Your task to perform on an android device: turn off notifications in google photos Image 0: 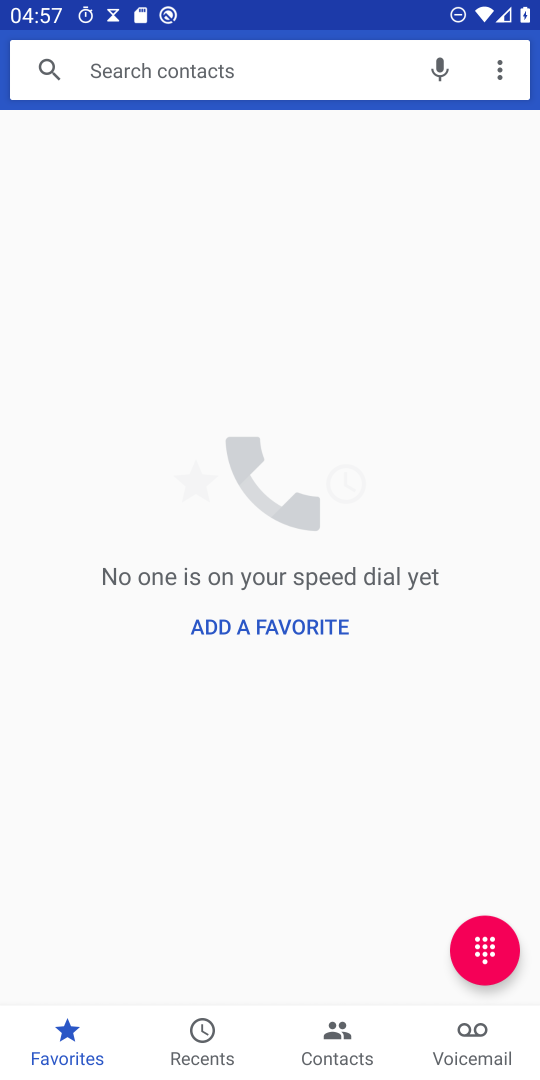
Step 0: press home button
Your task to perform on an android device: turn off notifications in google photos Image 1: 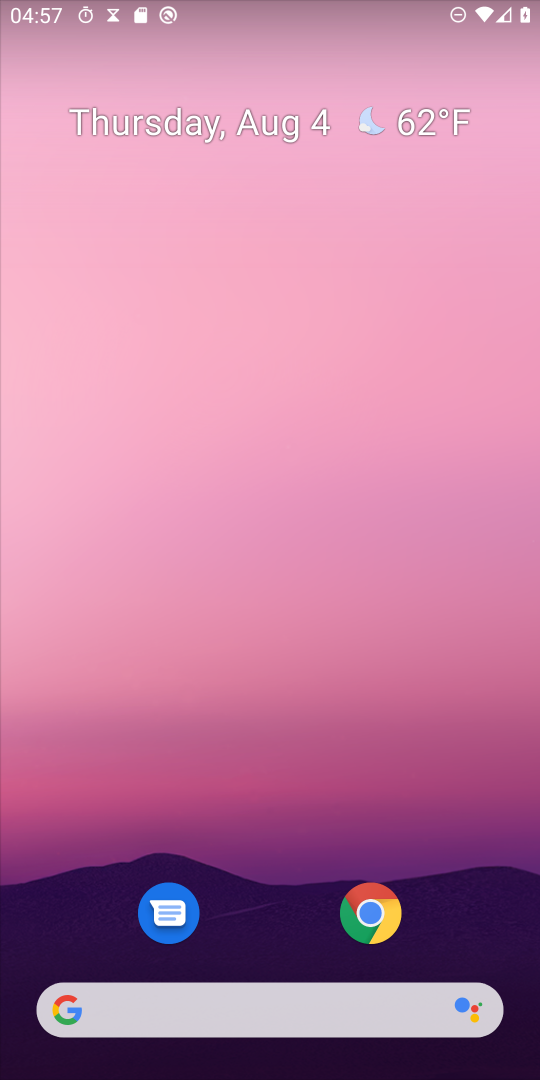
Step 1: drag from (351, 880) to (357, 31)
Your task to perform on an android device: turn off notifications in google photos Image 2: 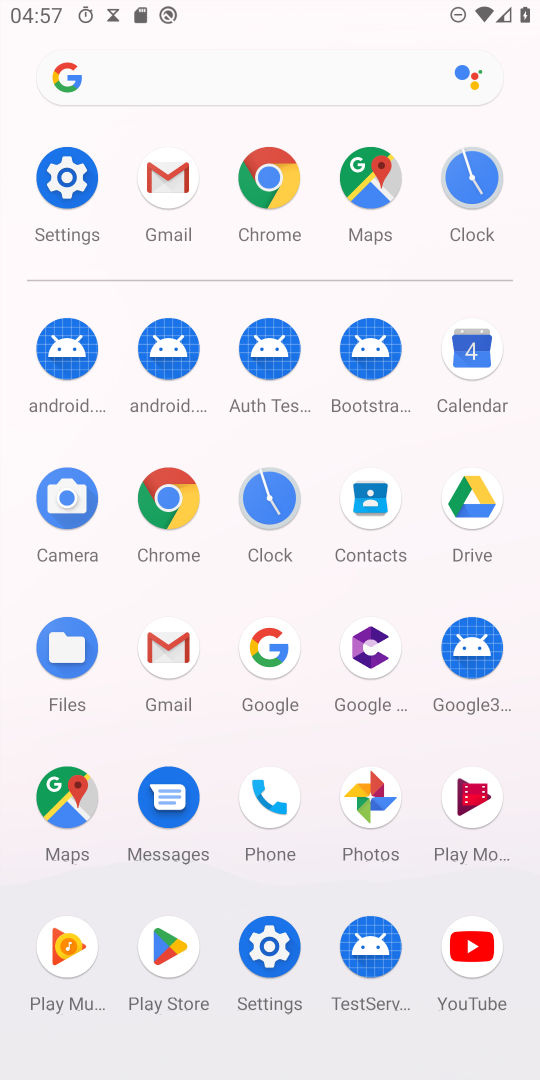
Step 2: click (356, 798)
Your task to perform on an android device: turn off notifications in google photos Image 3: 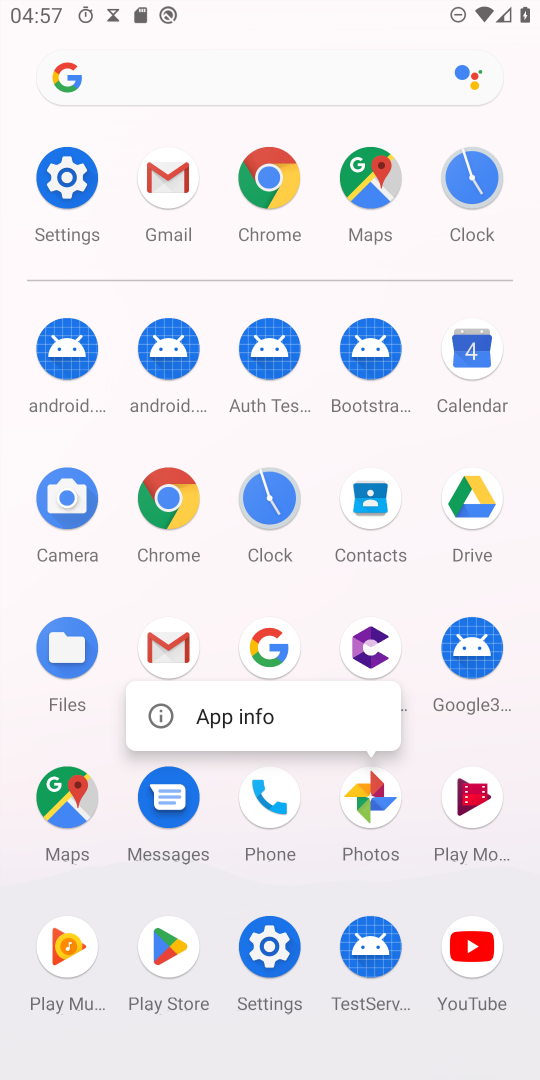
Step 3: click (362, 791)
Your task to perform on an android device: turn off notifications in google photos Image 4: 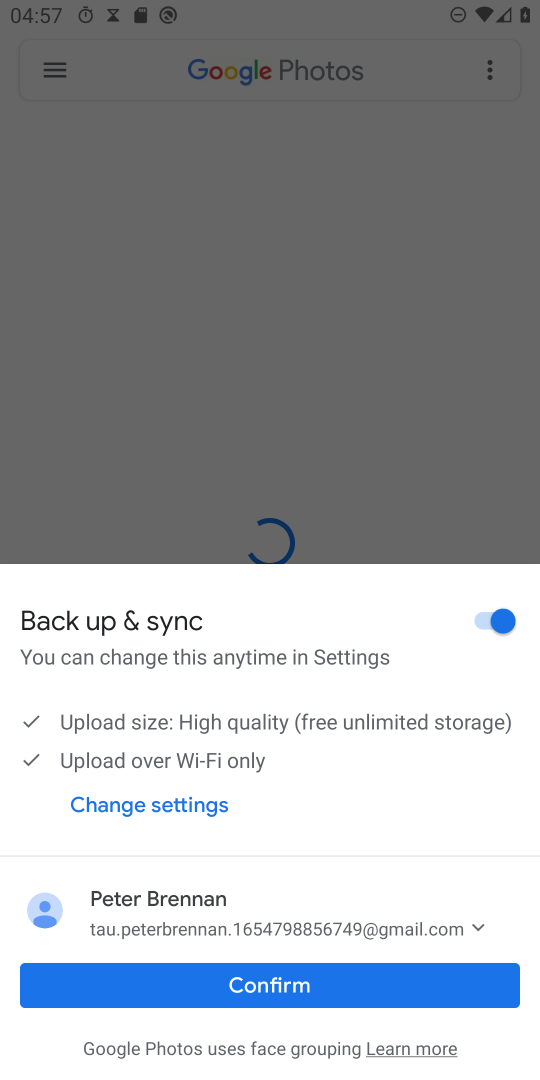
Step 4: click (283, 978)
Your task to perform on an android device: turn off notifications in google photos Image 5: 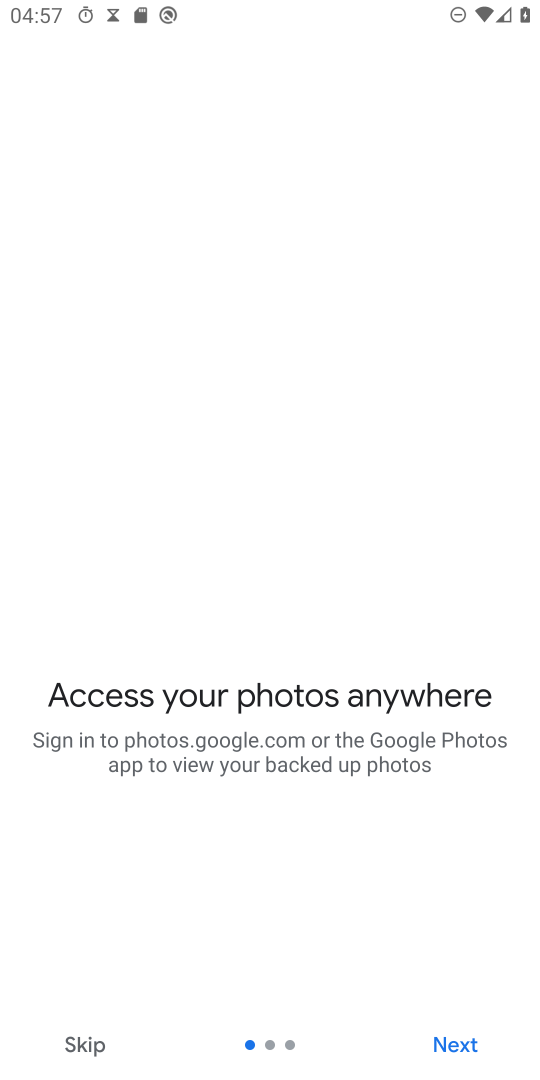
Step 5: click (444, 1035)
Your task to perform on an android device: turn off notifications in google photos Image 6: 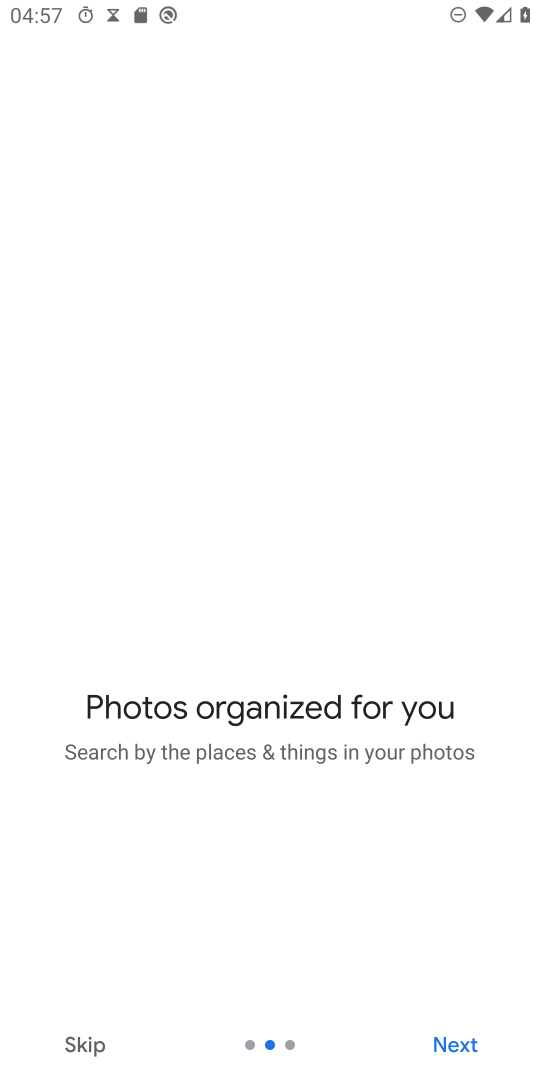
Step 6: click (444, 1035)
Your task to perform on an android device: turn off notifications in google photos Image 7: 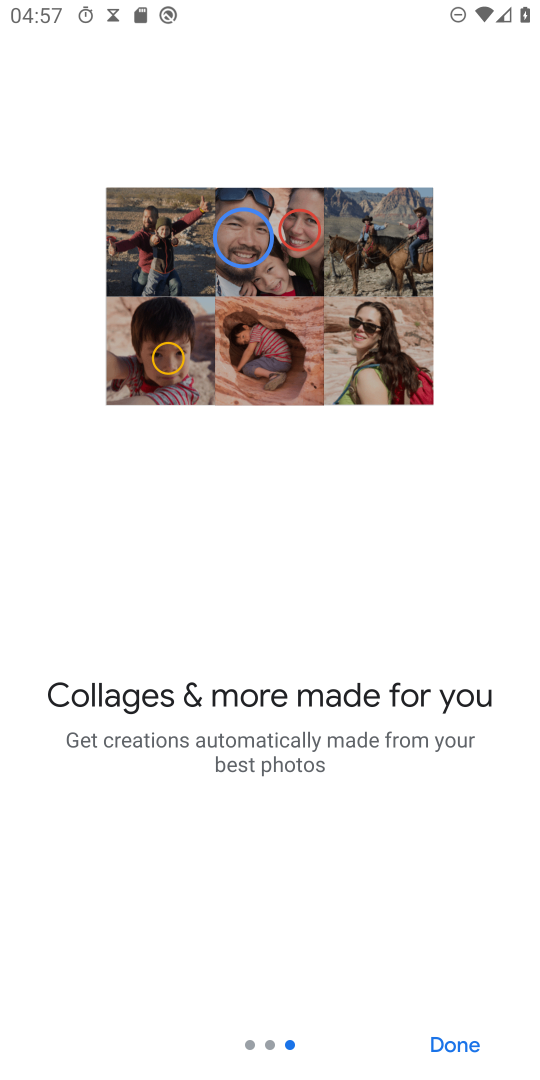
Step 7: click (444, 1035)
Your task to perform on an android device: turn off notifications in google photos Image 8: 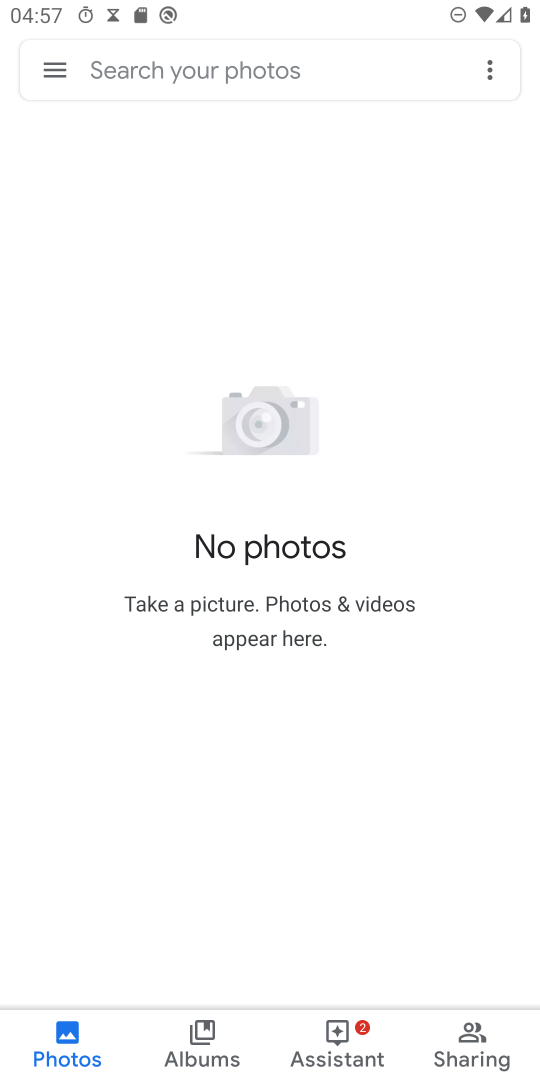
Step 8: click (61, 61)
Your task to perform on an android device: turn off notifications in google photos Image 9: 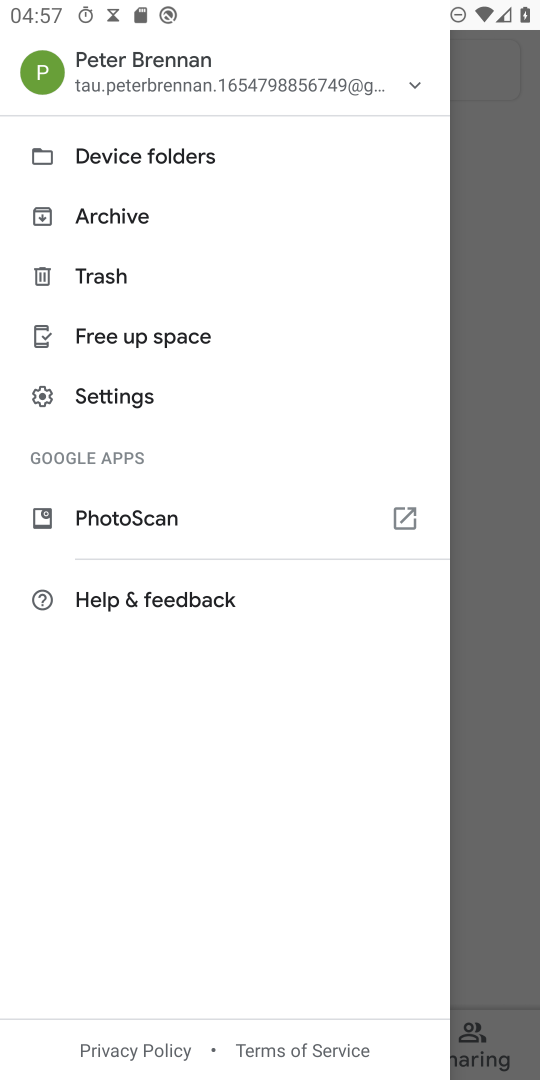
Step 9: click (134, 407)
Your task to perform on an android device: turn off notifications in google photos Image 10: 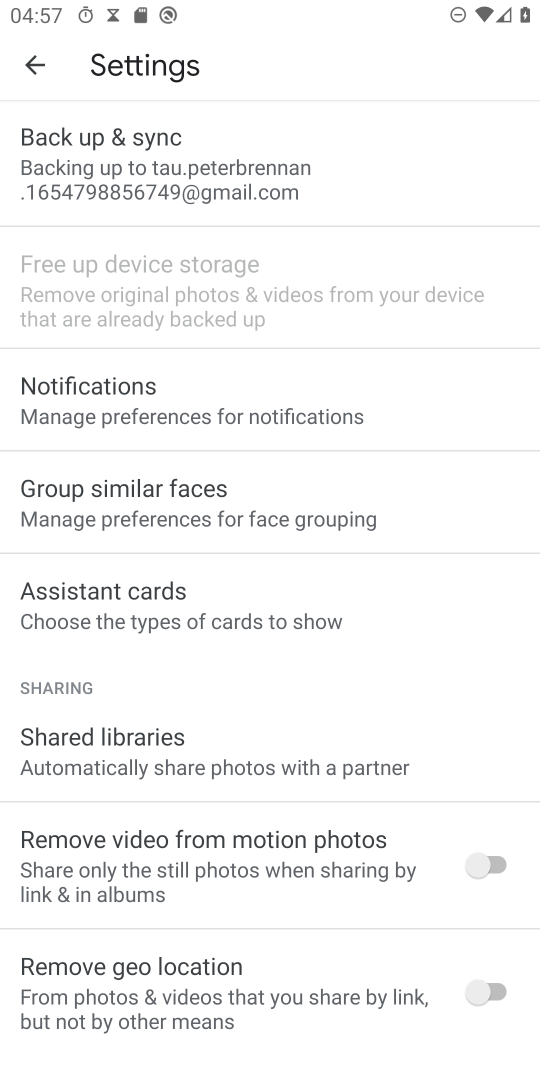
Step 10: click (196, 422)
Your task to perform on an android device: turn off notifications in google photos Image 11: 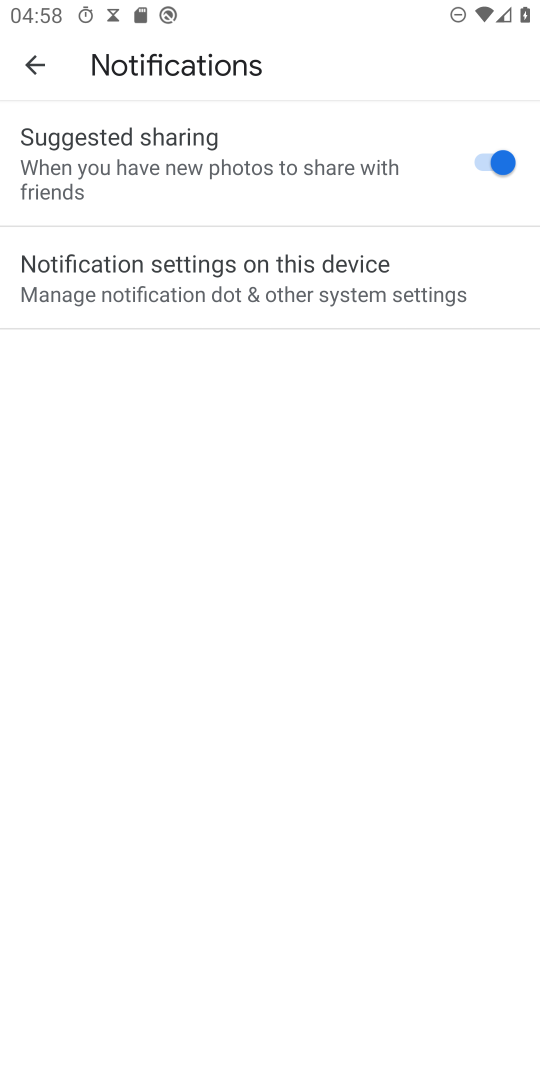
Step 11: click (483, 162)
Your task to perform on an android device: turn off notifications in google photos Image 12: 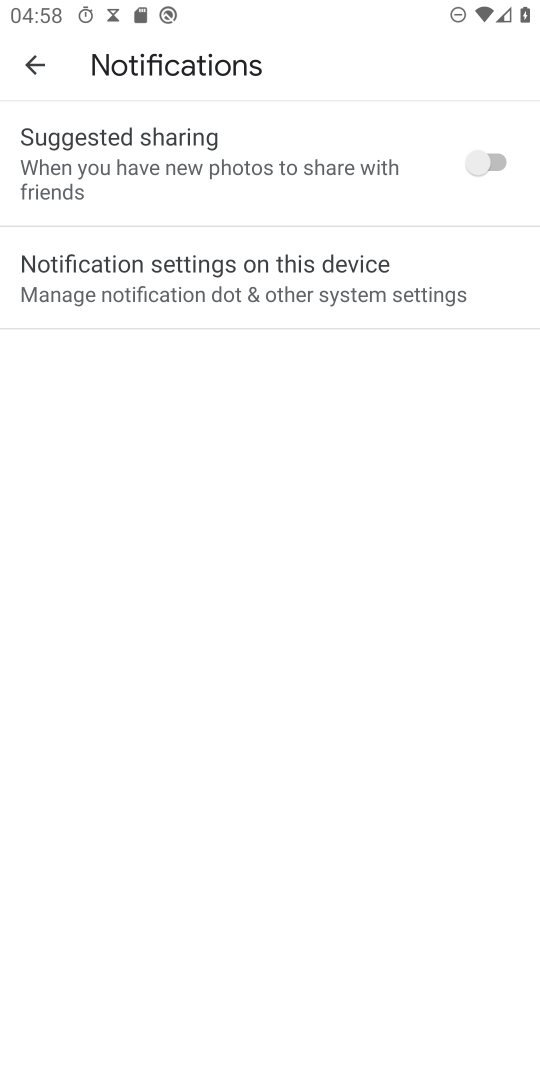
Step 12: task complete